Your task to perform on an android device: Go to Android settings Image 0: 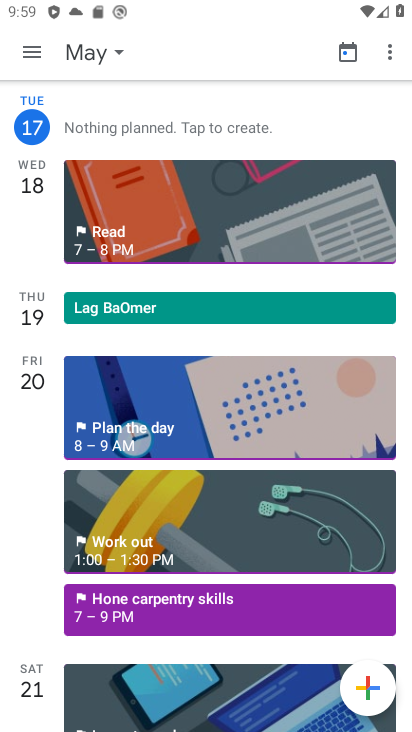
Step 0: press home button
Your task to perform on an android device: Go to Android settings Image 1: 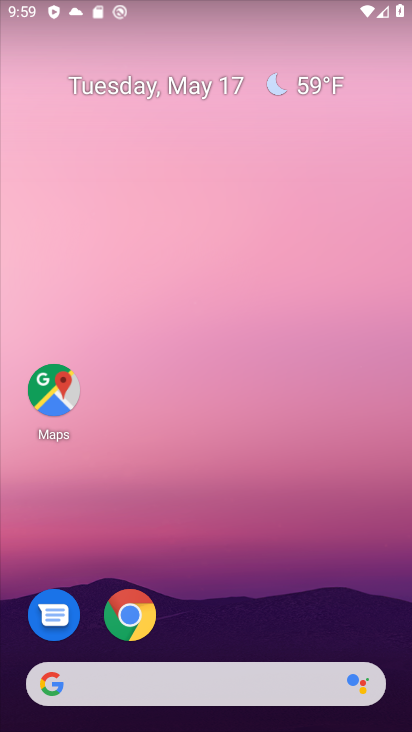
Step 1: drag from (266, 639) to (329, 221)
Your task to perform on an android device: Go to Android settings Image 2: 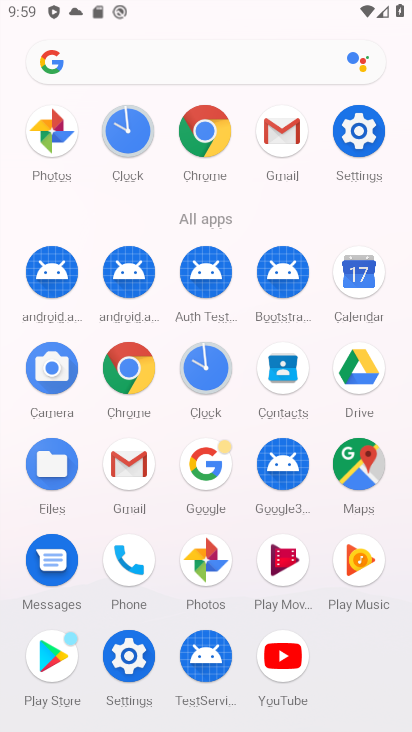
Step 2: click (364, 130)
Your task to perform on an android device: Go to Android settings Image 3: 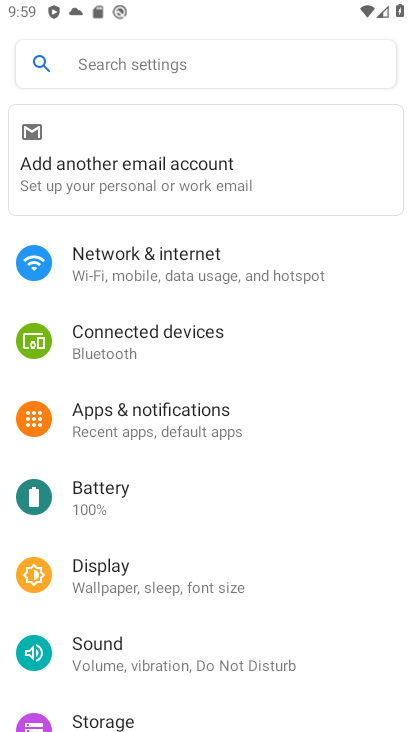
Step 3: drag from (215, 641) to (170, 334)
Your task to perform on an android device: Go to Android settings Image 4: 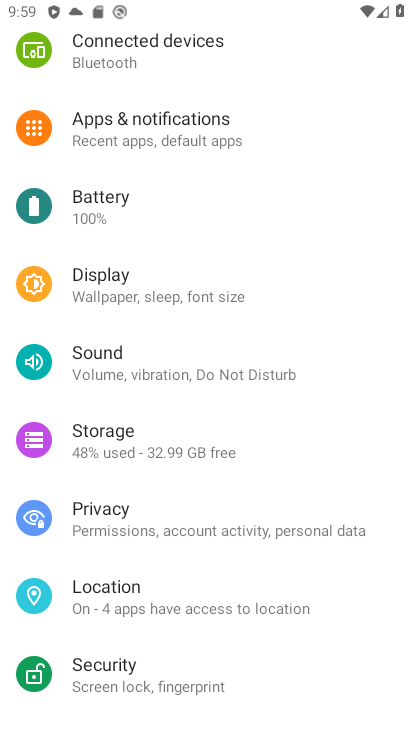
Step 4: drag from (171, 640) to (161, 338)
Your task to perform on an android device: Go to Android settings Image 5: 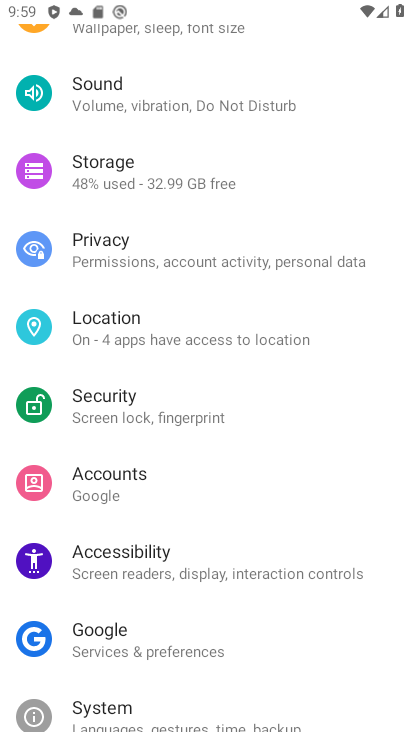
Step 5: drag from (137, 678) to (124, 458)
Your task to perform on an android device: Go to Android settings Image 6: 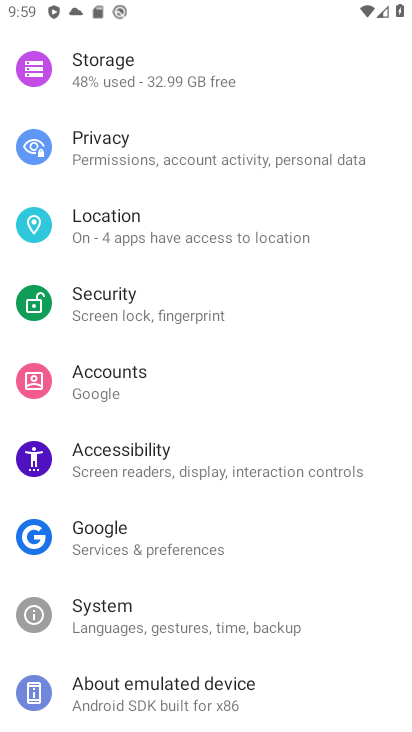
Step 6: click (119, 700)
Your task to perform on an android device: Go to Android settings Image 7: 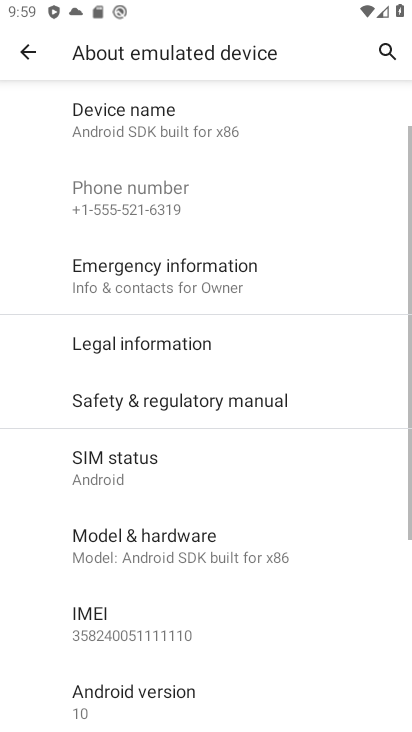
Step 7: drag from (157, 599) to (157, 301)
Your task to perform on an android device: Go to Android settings Image 8: 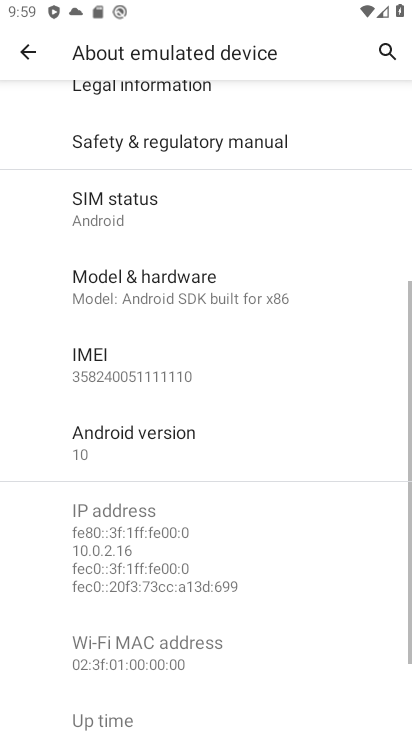
Step 8: click (130, 457)
Your task to perform on an android device: Go to Android settings Image 9: 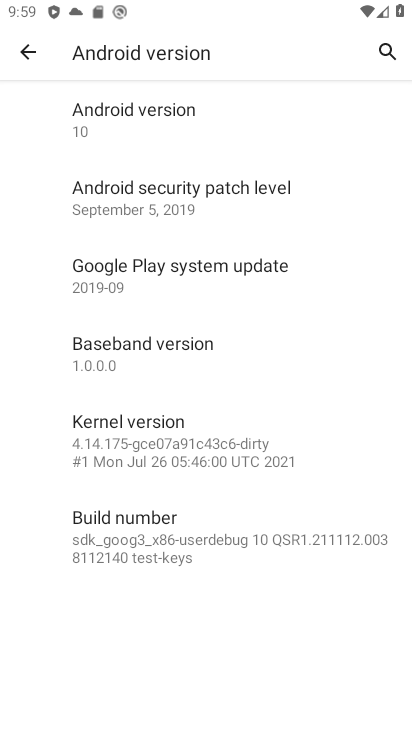
Step 9: task complete